Your task to perform on an android device: Search for razer blade on ebay.com, select the first entry, add it to the cart, then select checkout. Image 0: 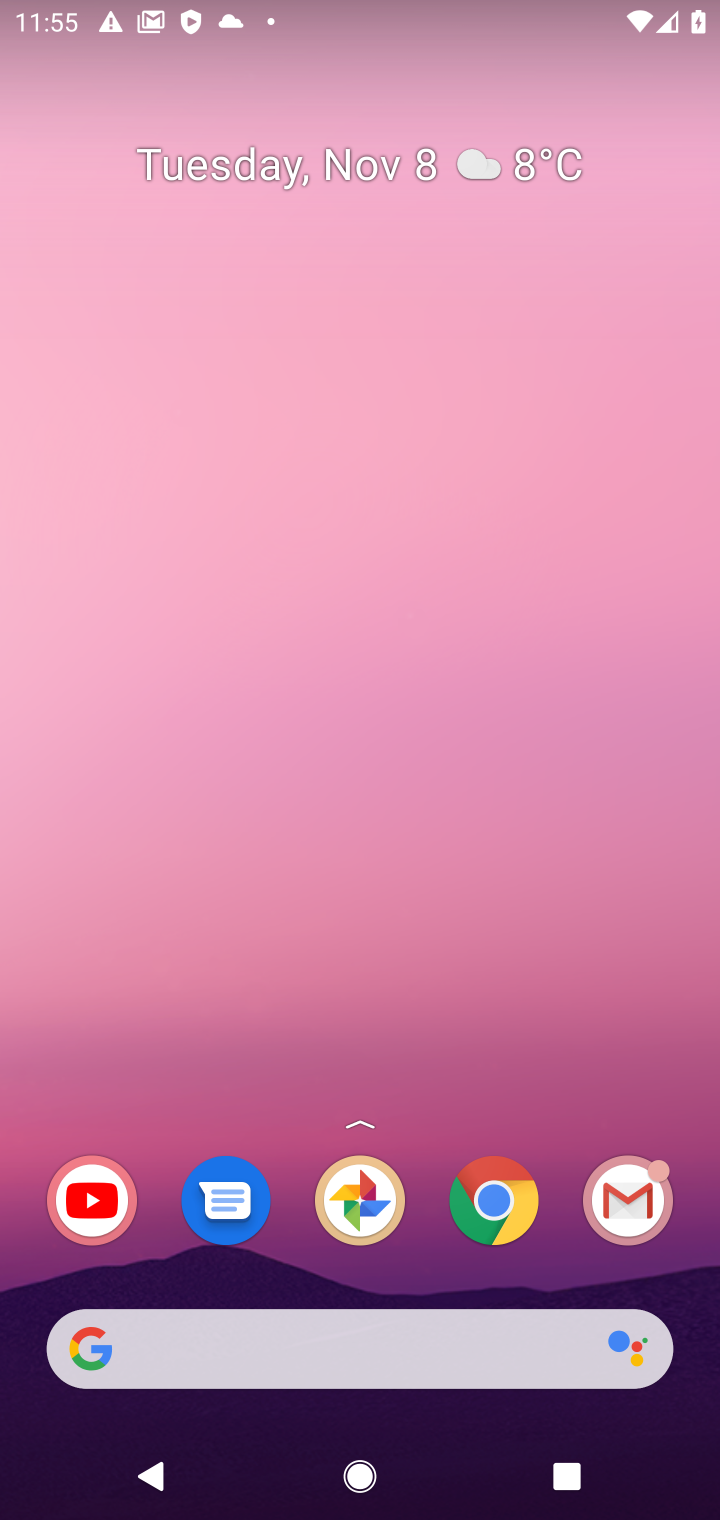
Step 0: click (249, 1325)
Your task to perform on an android device: Search for razer blade on ebay.com, select the first entry, add it to the cart, then select checkout. Image 1: 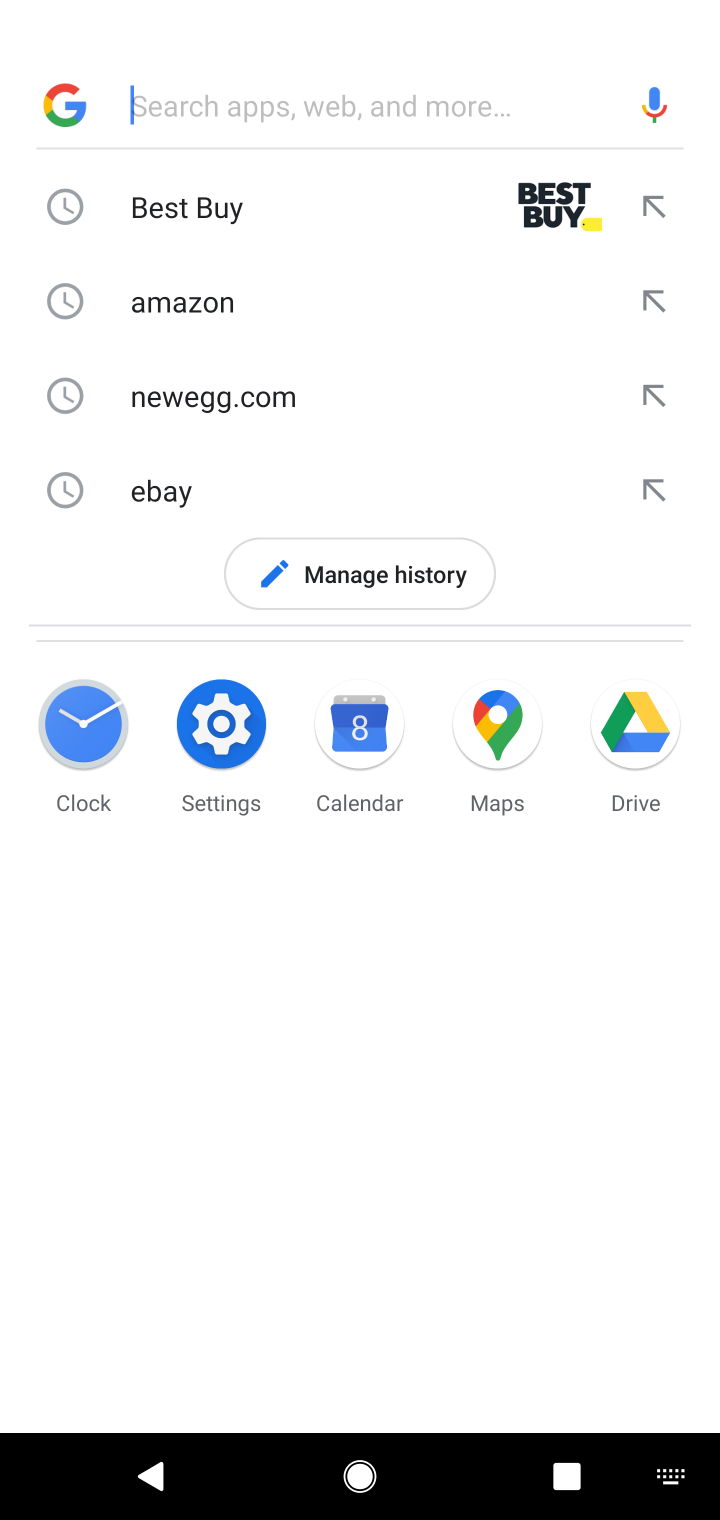
Step 1: type "ebay"
Your task to perform on an android device: Search for razer blade on ebay.com, select the first entry, add it to the cart, then select checkout. Image 2: 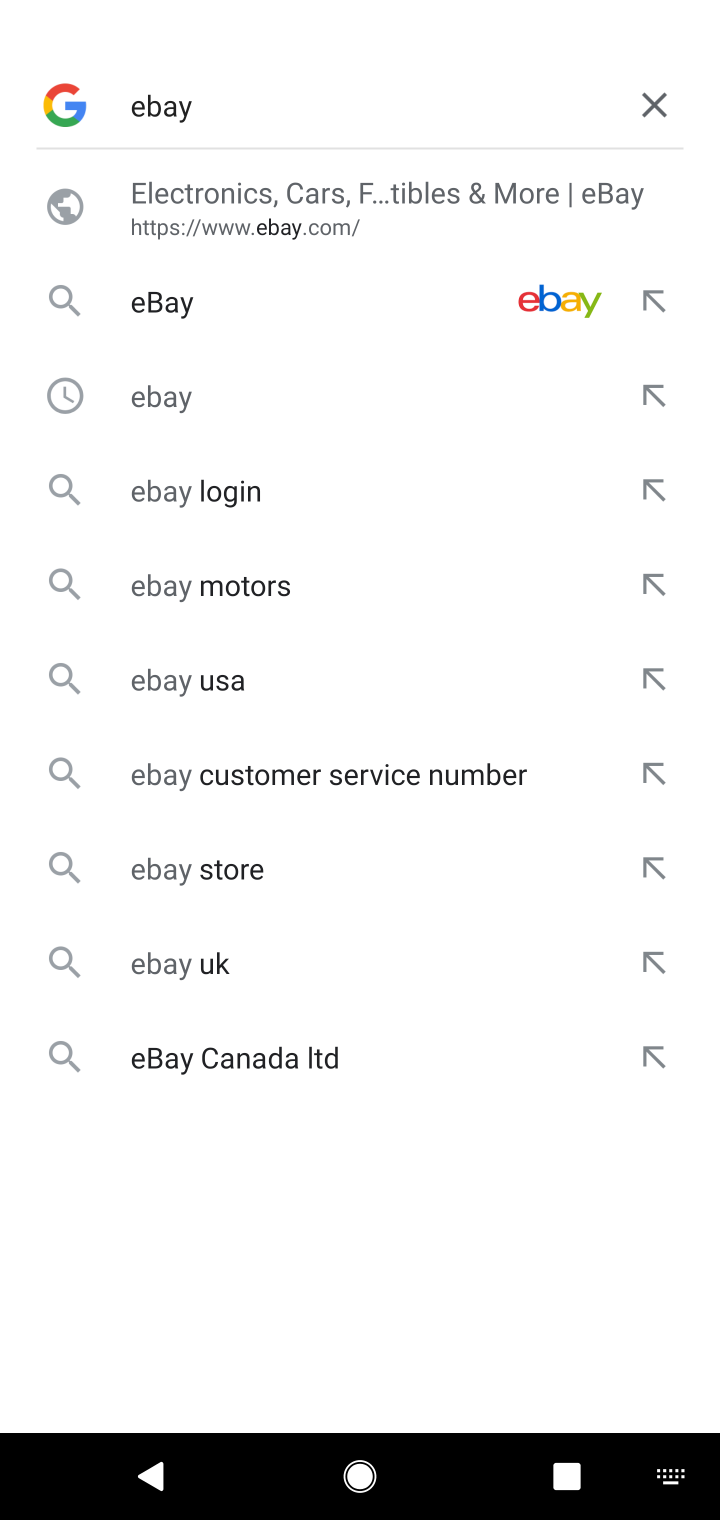
Step 2: click (288, 246)
Your task to perform on an android device: Search for razer blade on ebay.com, select the first entry, add it to the cart, then select checkout. Image 3: 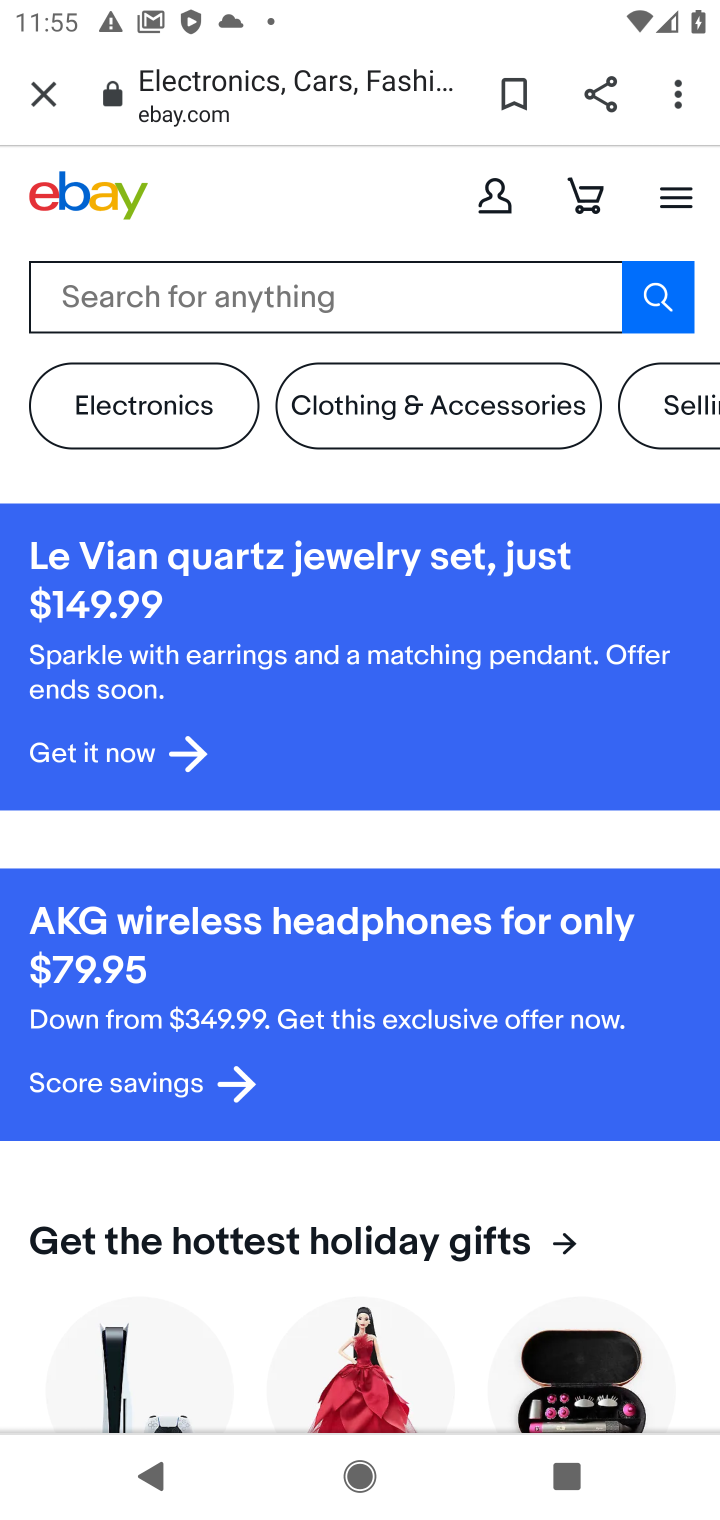
Step 3: click (433, 275)
Your task to perform on an android device: Search for razer blade on ebay.com, select the first entry, add it to the cart, then select checkout. Image 4: 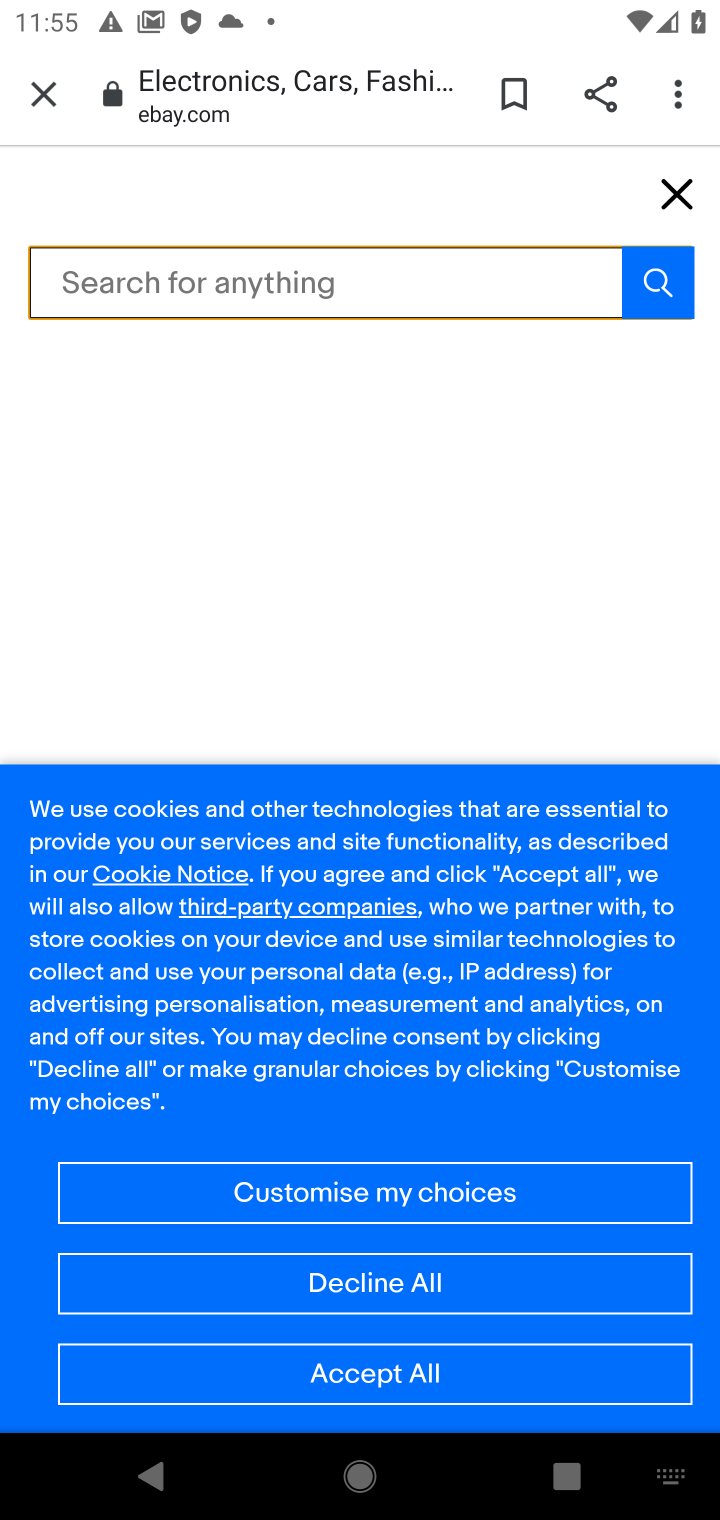
Step 4: type "razer blade"
Your task to perform on an android device: Search for razer blade on ebay.com, select the first entry, add it to the cart, then select checkout. Image 5: 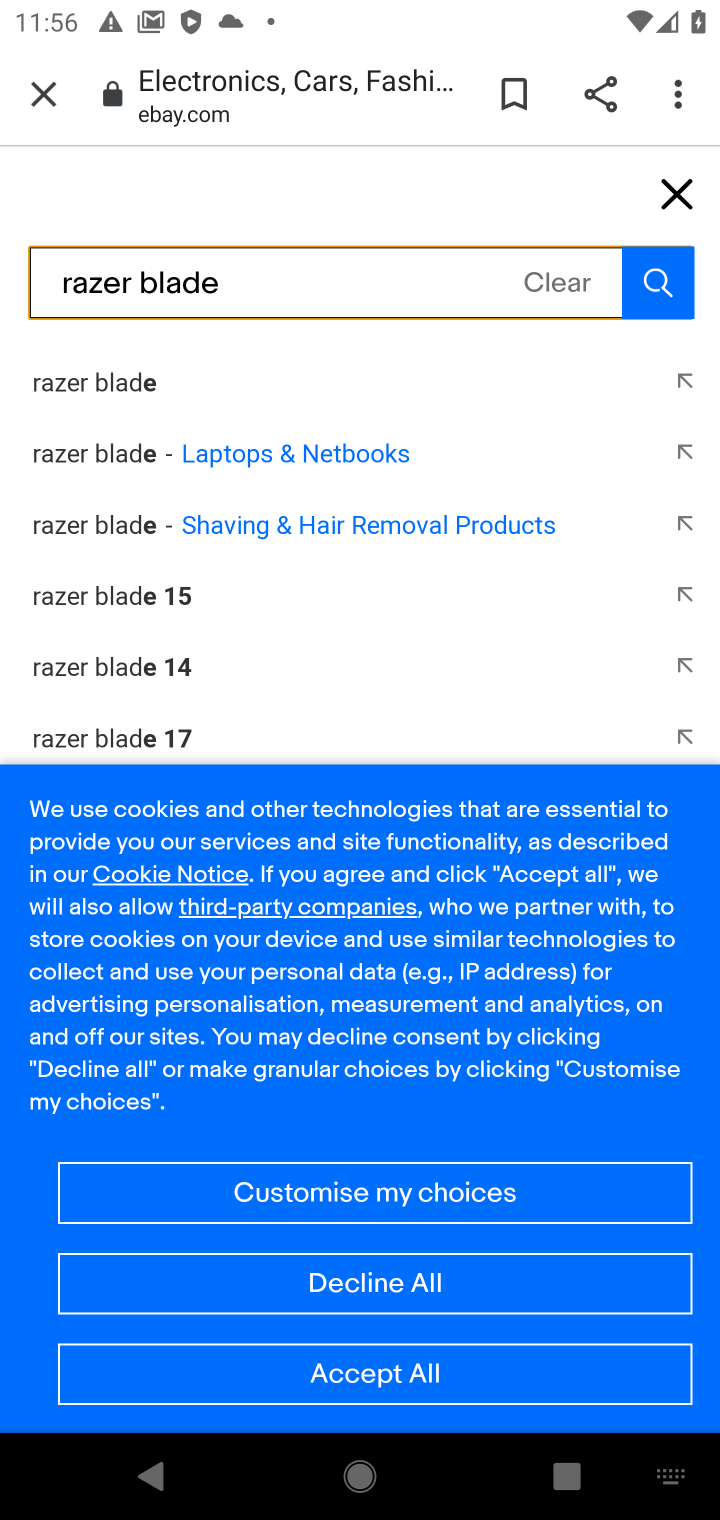
Step 5: click (256, 367)
Your task to perform on an android device: Search for razer blade on ebay.com, select the first entry, add it to the cart, then select checkout. Image 6: 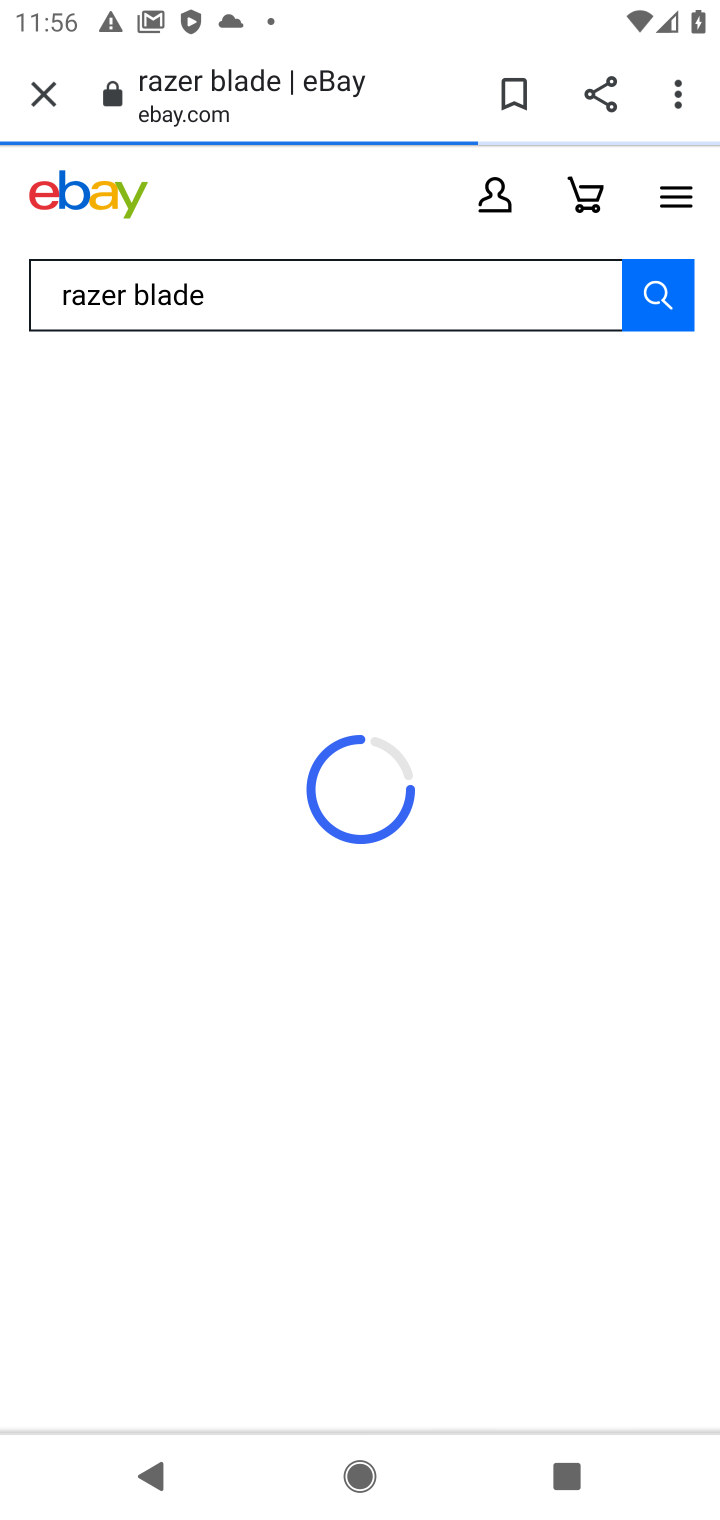
Step 6: task complete